Your task to perform on an android device: toggle data saver in the chrome app Image 0: 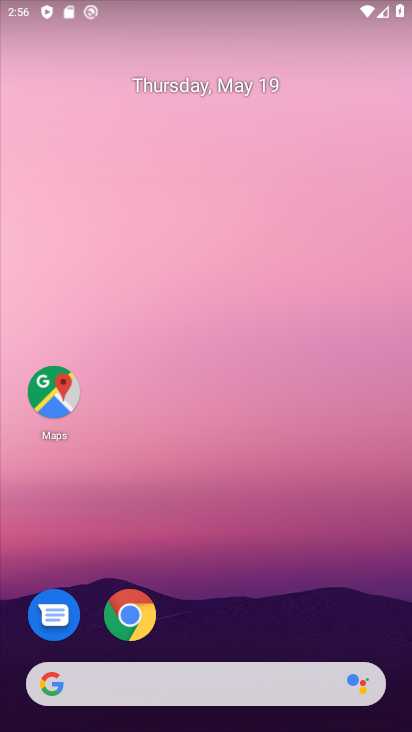
Step 0: press home button
Your task to perform on an android device: toggle data saver in the chrome app Image 1: 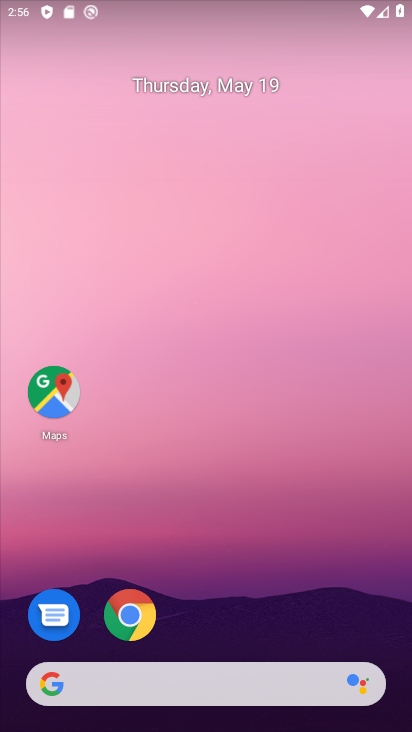
Step 1: click (126, 613)
Your task to perform on an android device: toggle data saver in the chrome app Image 2: 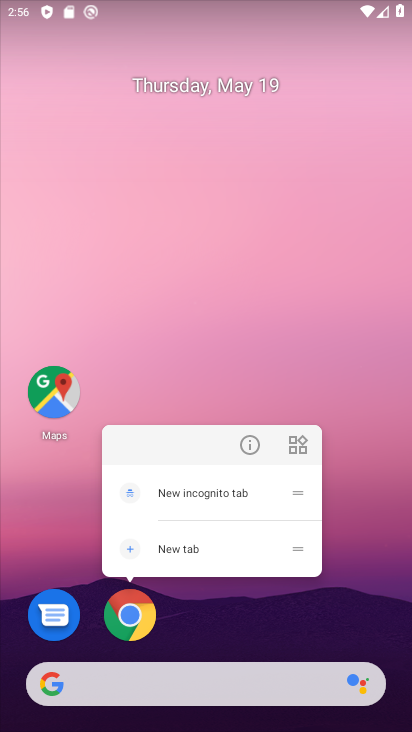
Step 2: click (124, 608)
Your task to perform on an android device: toggle data saver in the chrome app Image 3: 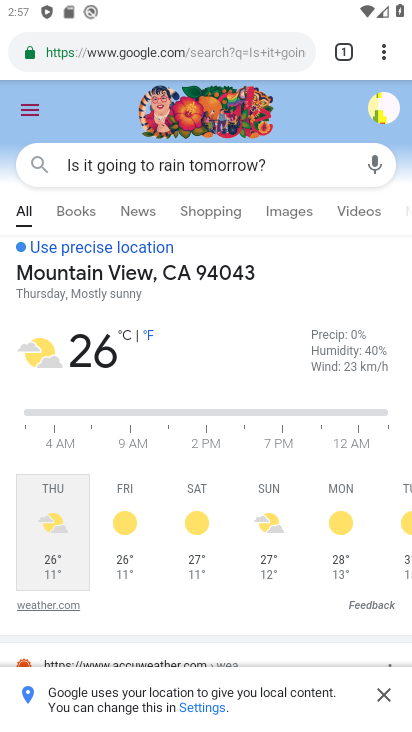
Step 3: drag from (386, 44) to (179, 569)
Your task to perform on an android device: toggle data saver in the chrome app Image 4: 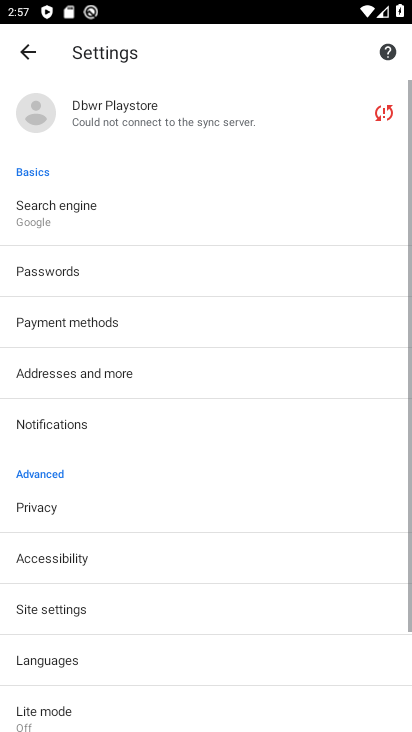
Step 4: drag from (179, 569) to (199, 317)
Your task to perform on an android device: toggle data saver in the chrome app Image 5: 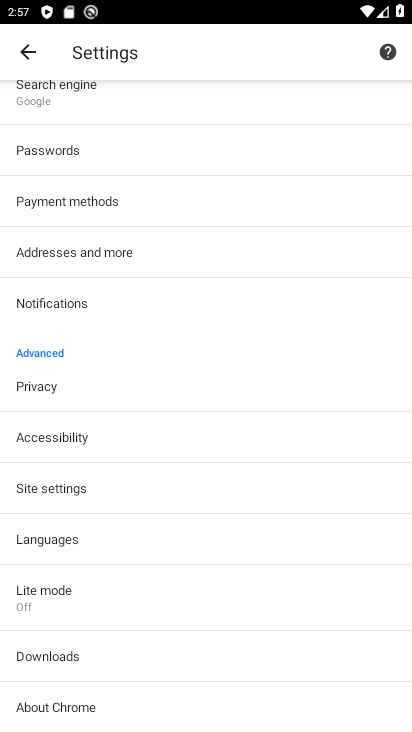
Step 5: click (105, 595)
Your task to perform on an android device: toggle data saver in the chrome app Image 6: 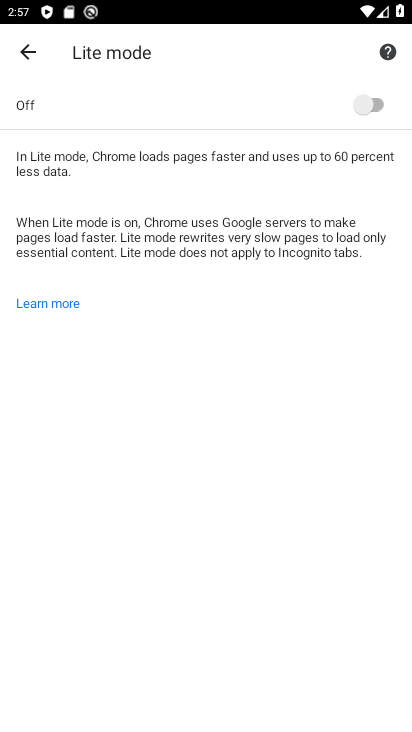
Step 6: click (351, 111)
Your task to perform on an android device: toggle data saver in the chrome app Image 7: 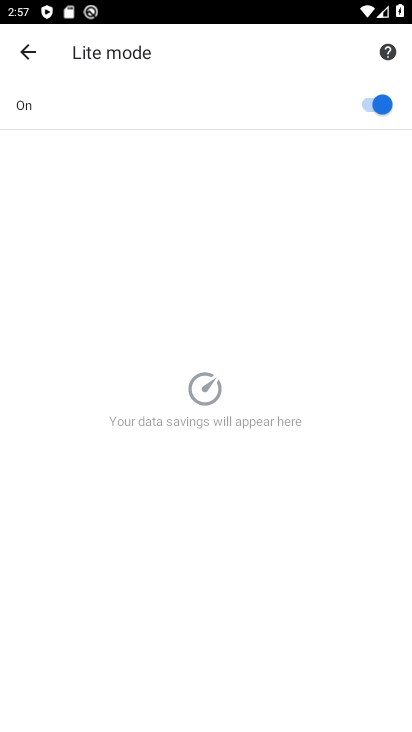
Step 7: task complete